Your task to perform on an android device: Open wifi settings Image 0: 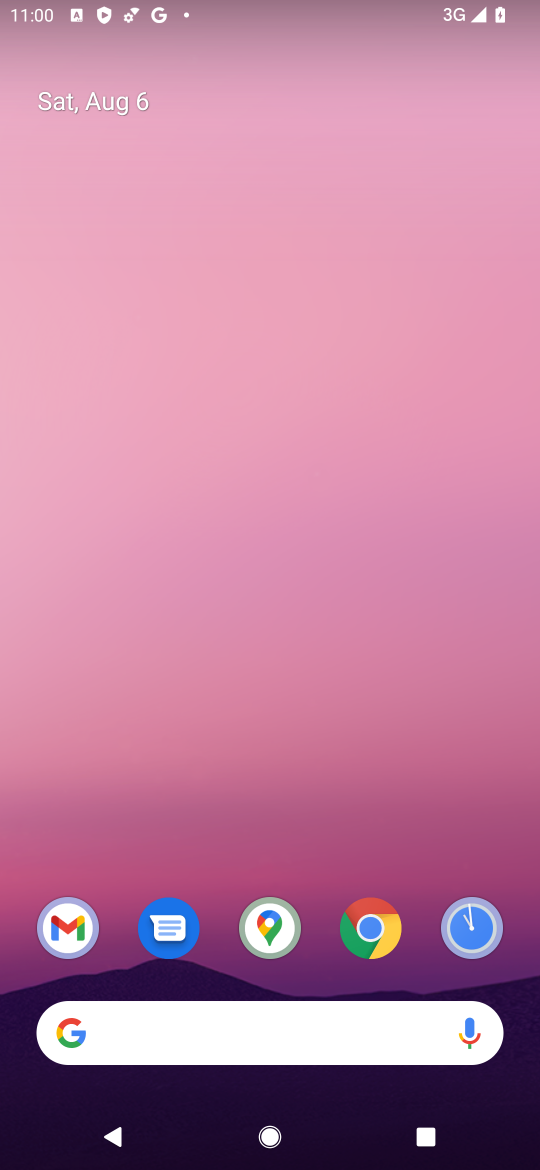
Step 0: drag from (244, 13) to (225, 524)
Your task to perform on an android device: Open wifi settings Image 1: 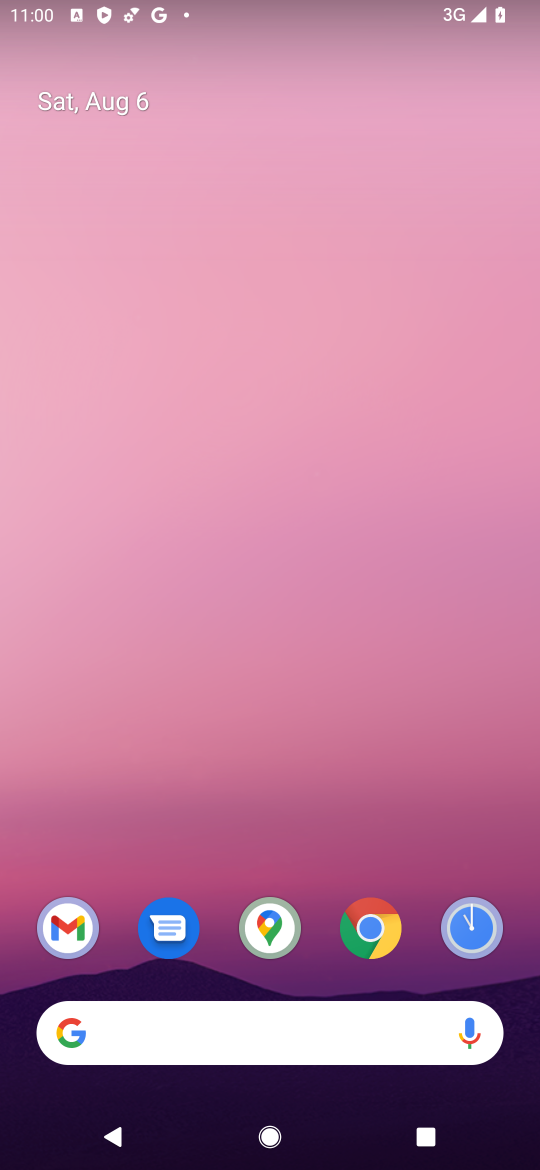
Step 1: drag from (167, 13) to (251, 1164)
Your task to perform on an android device: Open wifi settings Image 2: 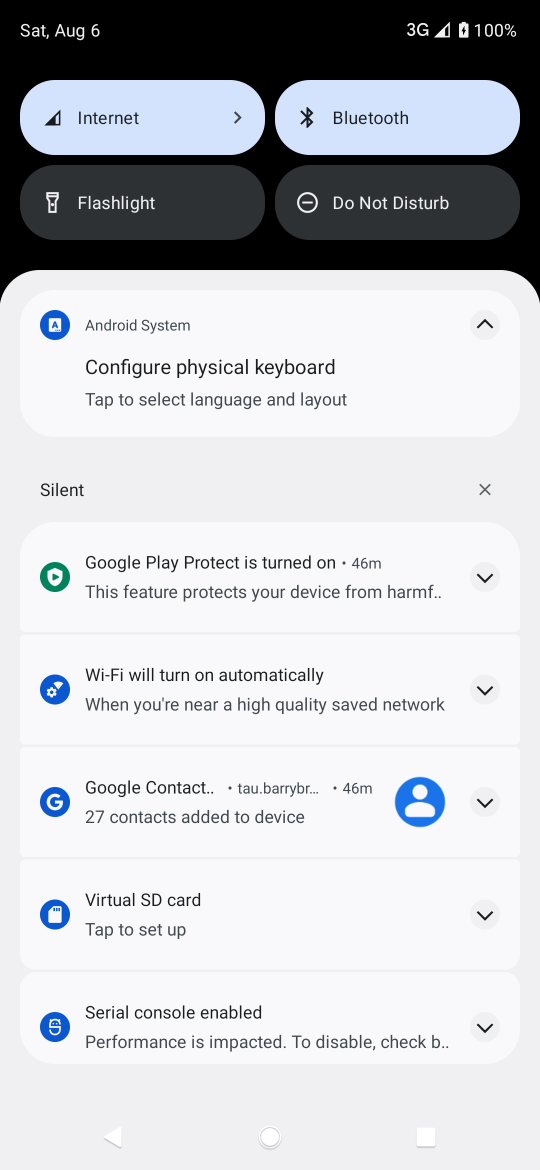
Step 2: click (225, 120)
Your task to perform on an android device: Open wifi settings Image 3: 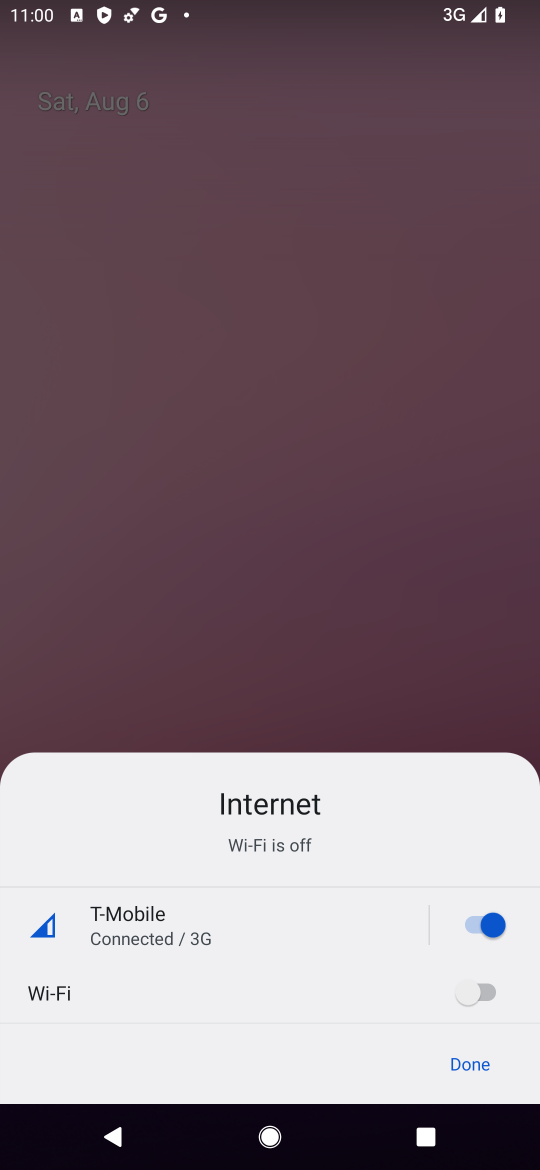
Step 3: click (66, 993)
Your task to perform on an android device: Open wifi settings Image 4: 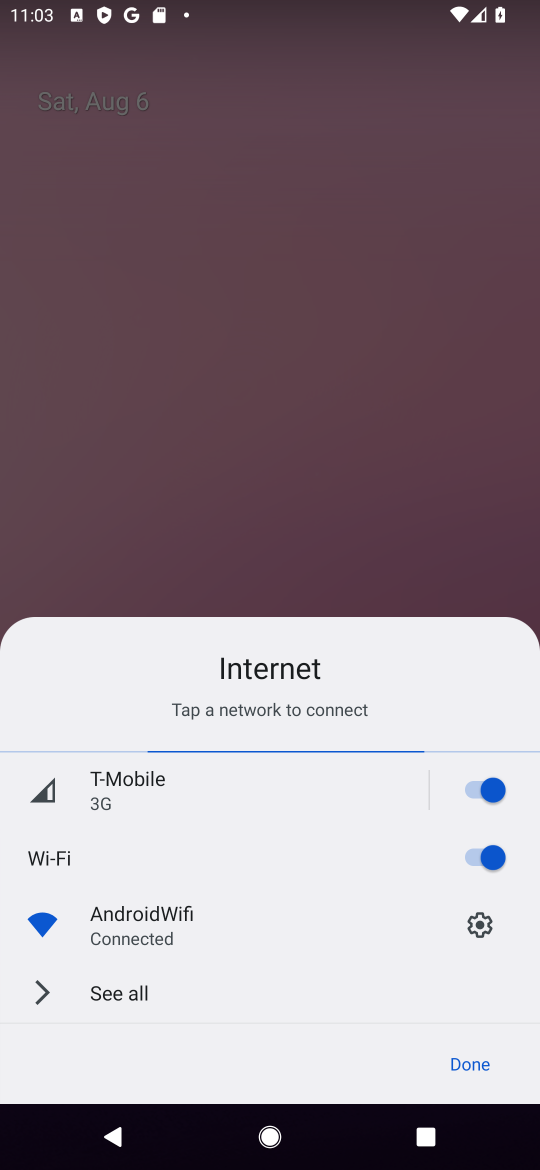
Step 4: task complete